Your task to perform on an android device: open chrome and create a bookmark for the current page Image 0: 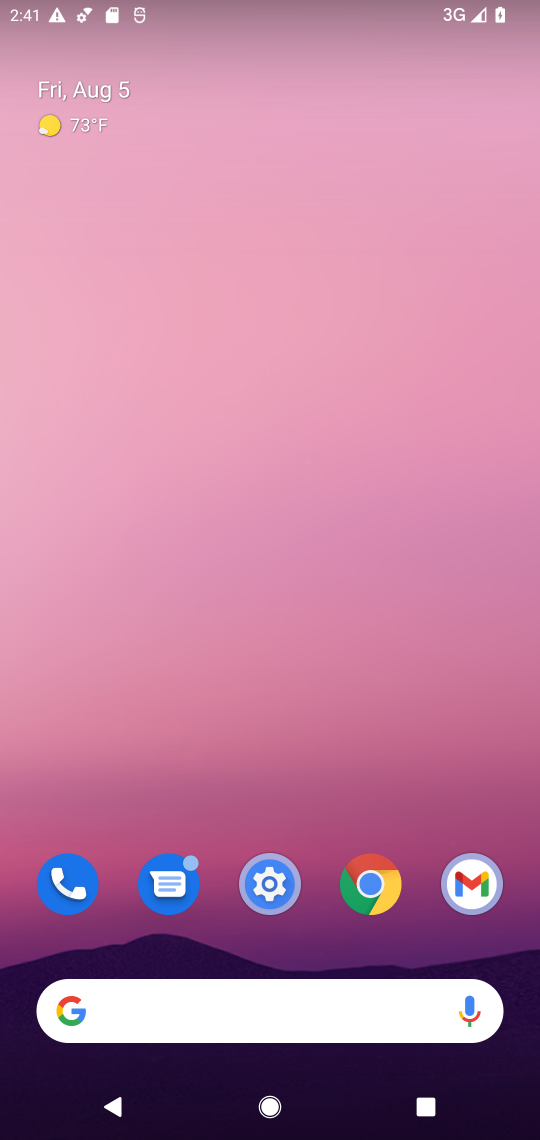
Step 0: drag from (410, 814) to (25, 221)
Your task to perform on an android device: open chrome and create a bookmark for the current page Image 1: 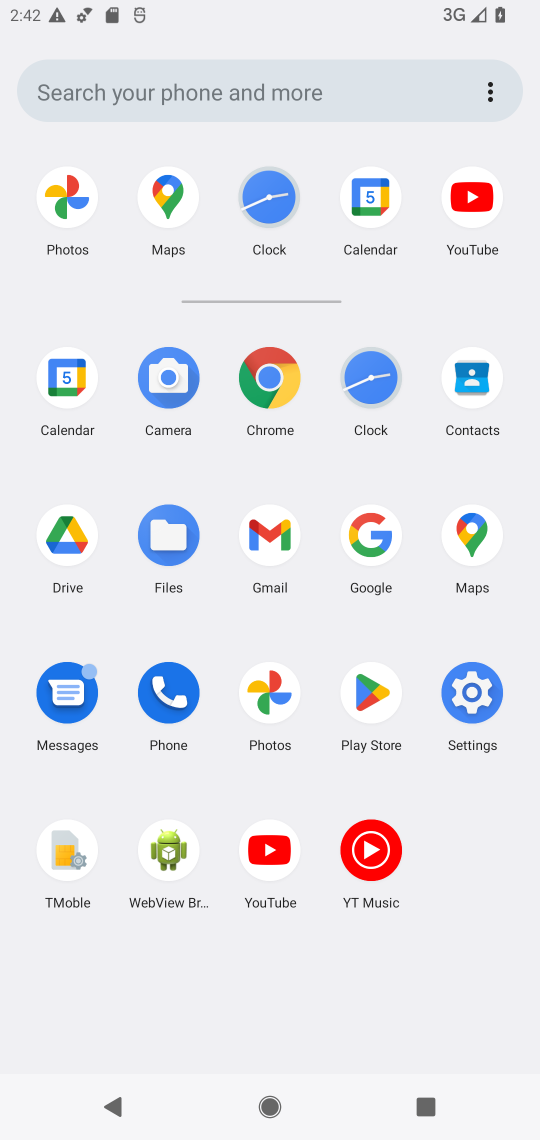
Step 1: click (251, 386)
Your task to perform on an android device: open chrome and create a bookmark for the current page Image 2: 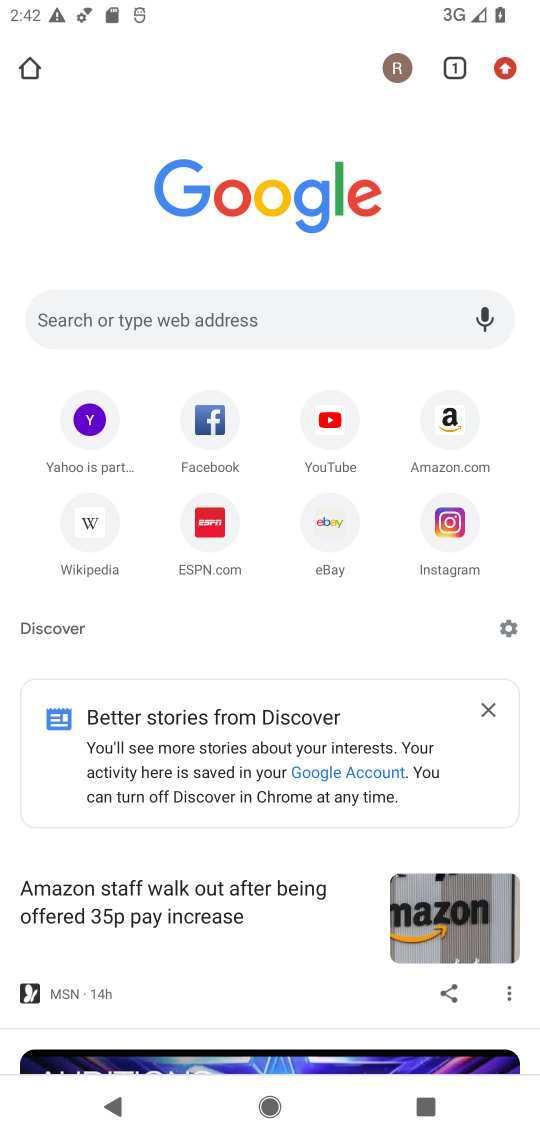
Step 2: click (510, 62)
Your task to perform on an android device: open chrome and create a bookmark for the current page Image 3: 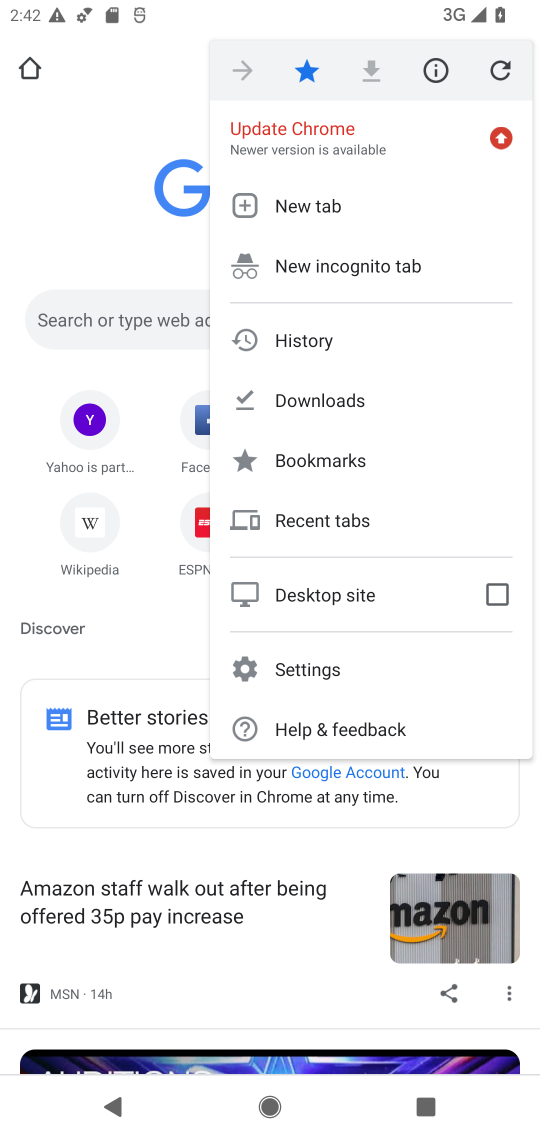
Step 3: task complete